Your task to perform on an android device: toggle sleep mode Image 0: 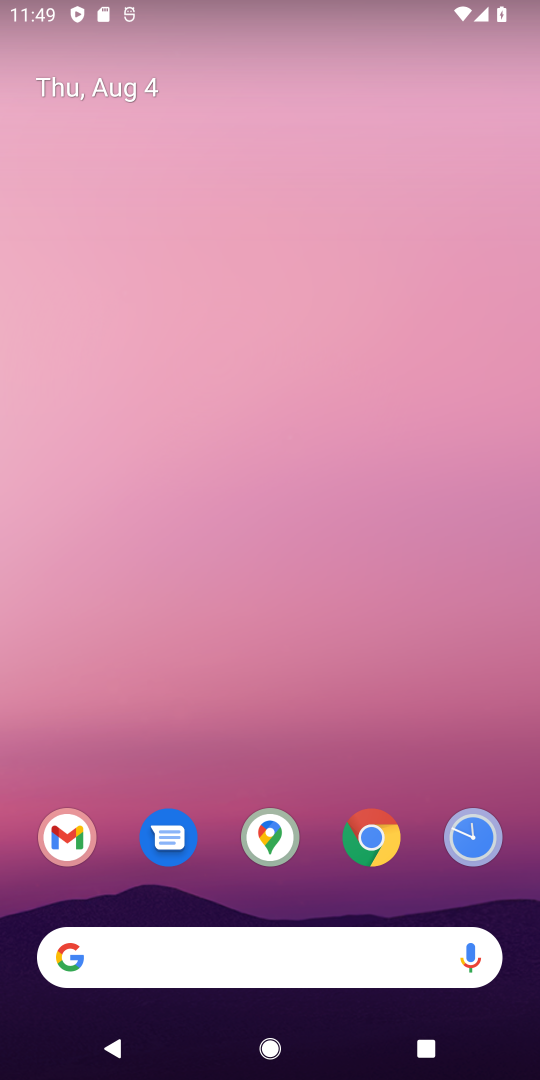
Step 0: drag from (309, 741) to (274, 238)
Your task to perform on an android device: toggle sleep mode Image 1: 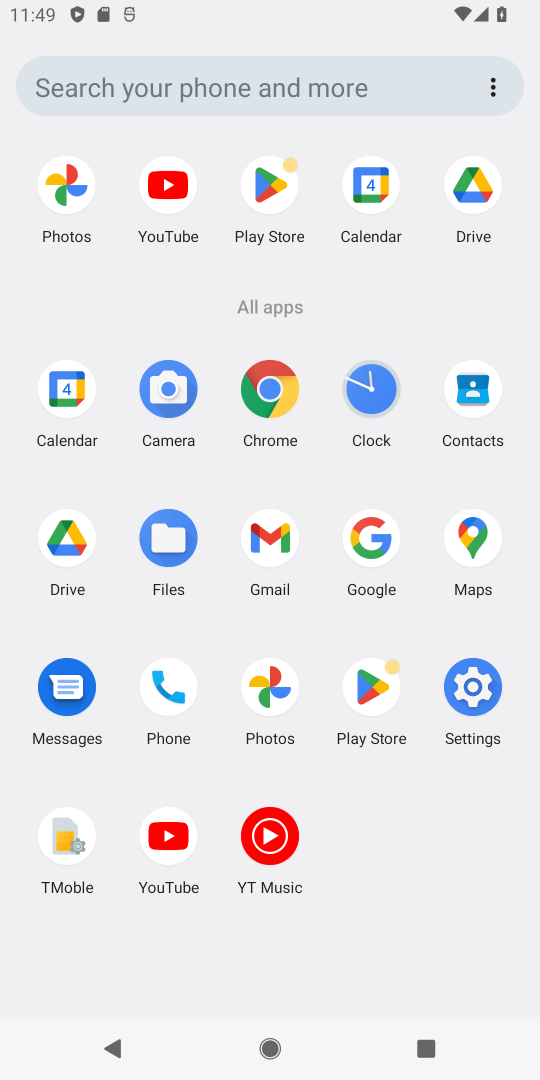
Step 1: click (467, 682)
Your task to perform on an android device: toggle sleep mode Image 2: 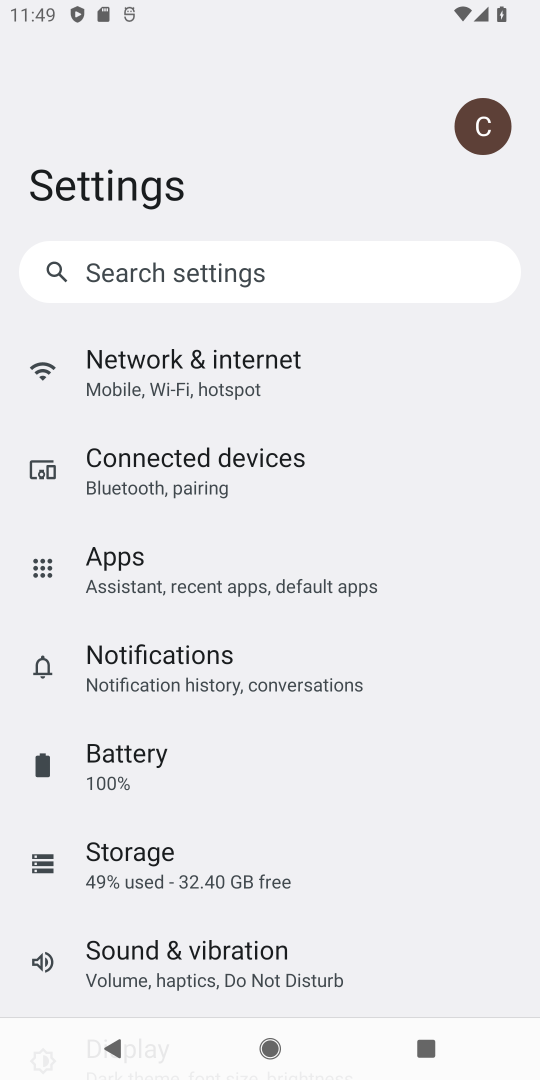
Step 2: drag from (208, 939) to (206, 508)
Your task to perform on an android device: toggle sleep mode Image 3: 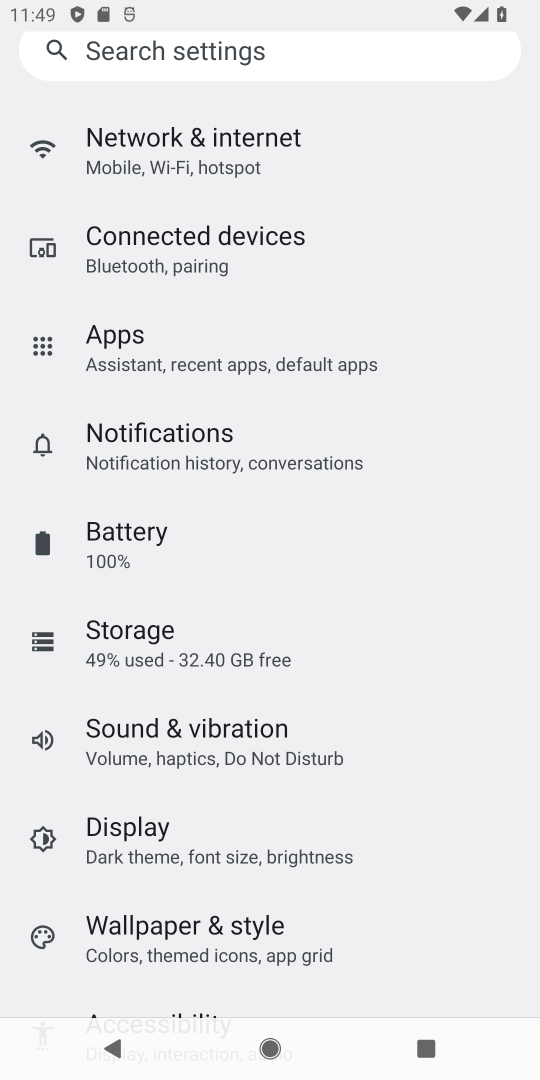
Step 3: click (160, 862)
Your task to perform on an android device: toggle sleep mode Image 4: 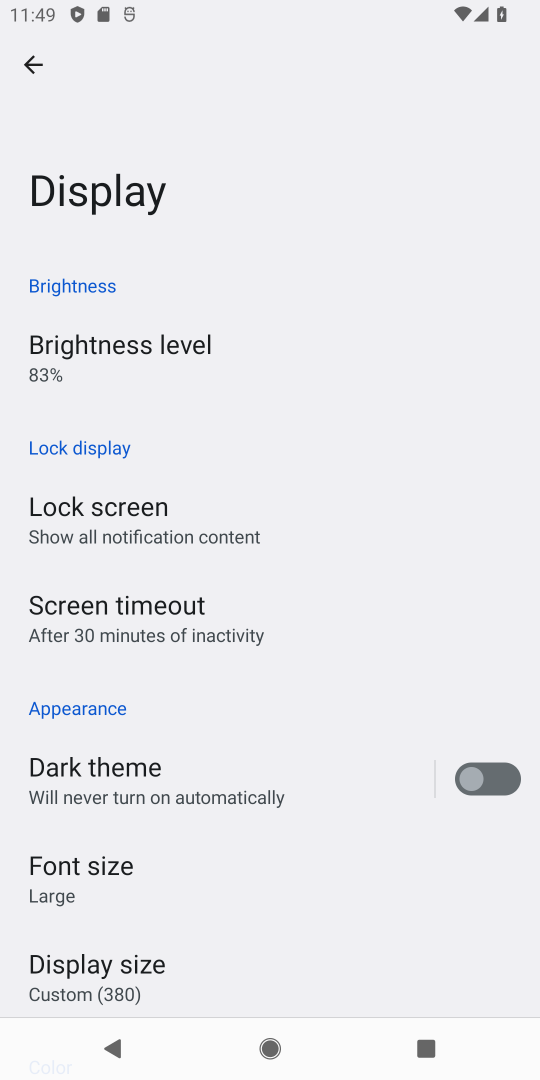
Step 4: task complete